Your task to perform on an android device: turn on priority inbox in the gmail app Image 0: 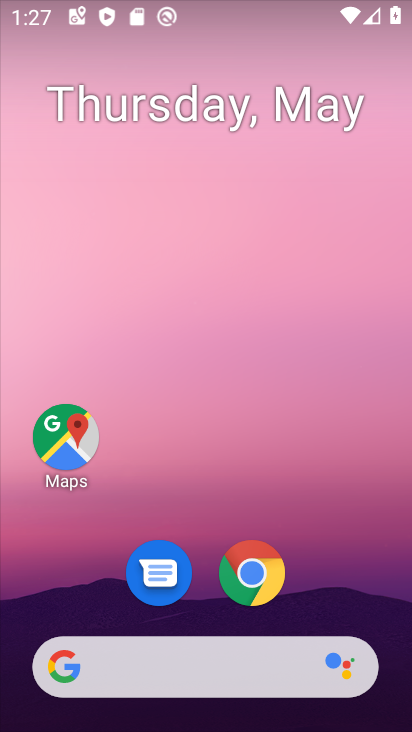
Step 0: drag from (187, 671) to (170, 11)
Your task to perform on an android device: turn on priority inbox in the gmail app Image 1: 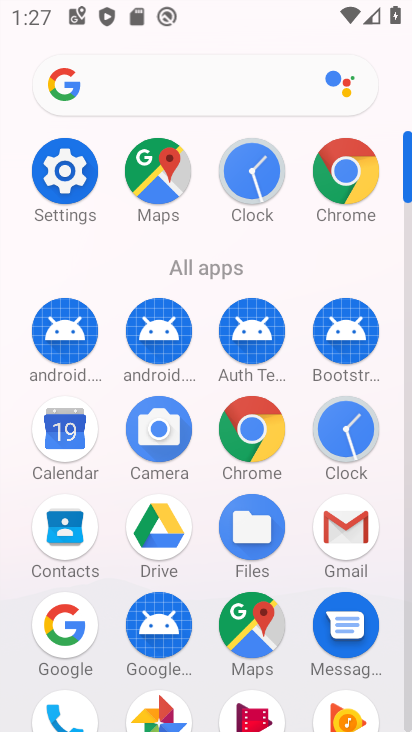
Step 1: click (344, 535)
Your task to perform on an android device: turn on priority inbox in the gmail app Image 2: 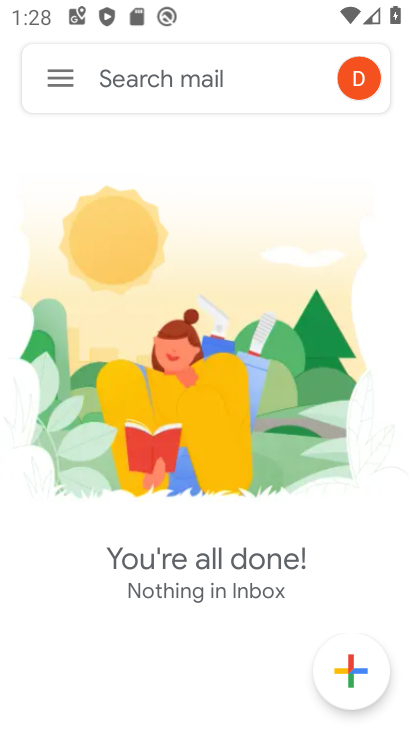
Step 2: click (72, 83)
Your task to perform on an android device: turn on priority inbox in the gmail app Image 3: 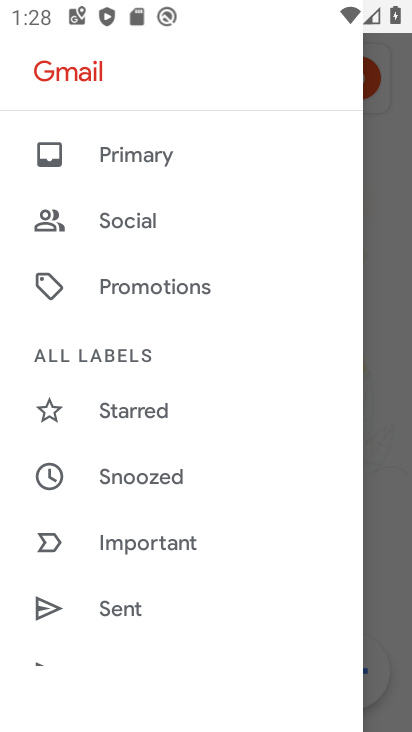
Step 3: drag from (156, 603) to (180, 331)
Your task to perform on an android device: turn on priority inbox in the gmail app Image 4: 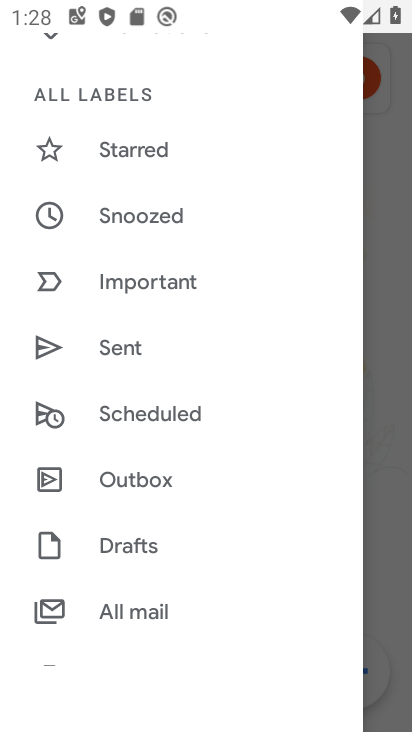
Step 4: drag from (139, 563) to (158, 157)
Your task to perform on an android device: turn on priority inbox in the gmail app Image 5: 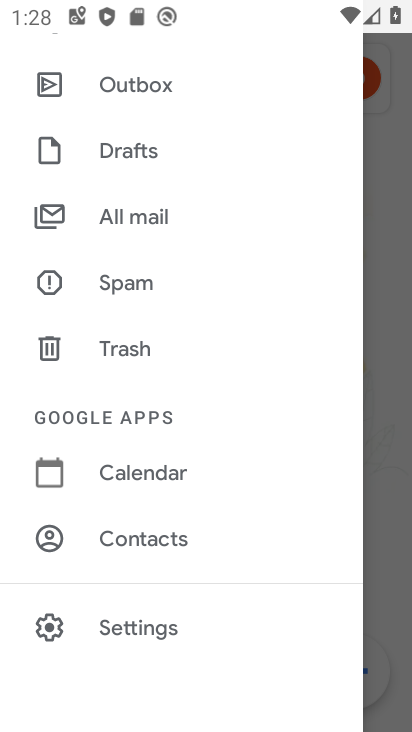
Step 5: click (145, 620)
Your task to perform on an android device: turn on priority inbox in the gmail app Image 6: 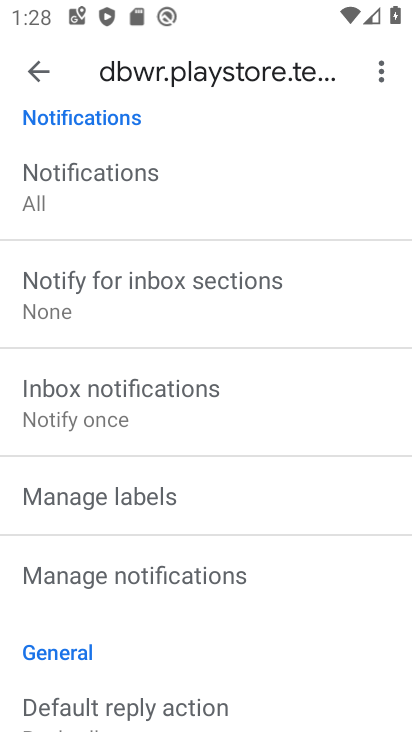
Step 6: drag from (153, 225) to (207, 674)
Your task to perform on an android device: turn on priority inbox in the gmail app Image 7: 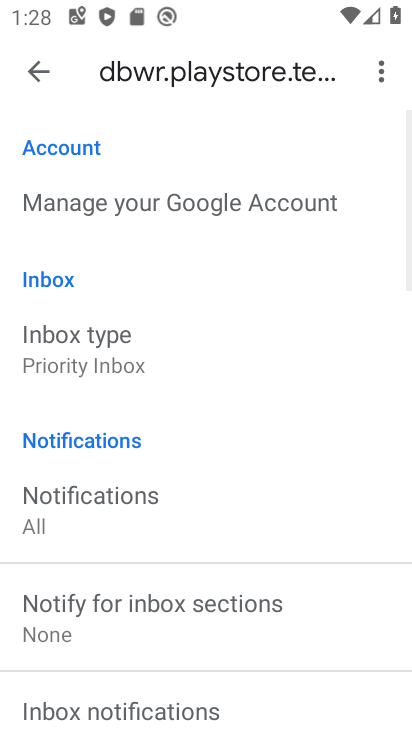
Step 7: click (97, 344)
Your task to perform on an android device: turn on priority inbox in the gmail app Image 8: 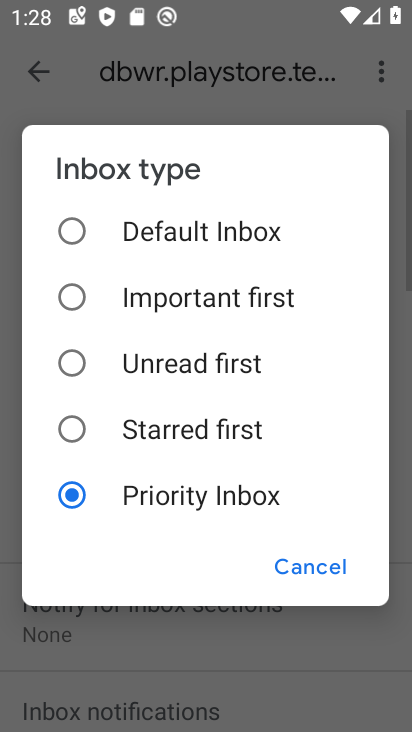
Step 8: click (142, 495)
Your task to perform on an android device: turn on priority inbox in the gmail app Image 9: 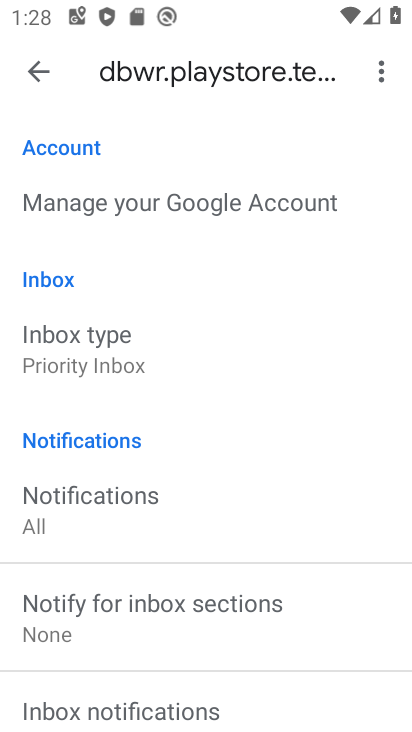
Step 9: task complete